Your task to perform on an android device: Turn on the flashlight Image 0: 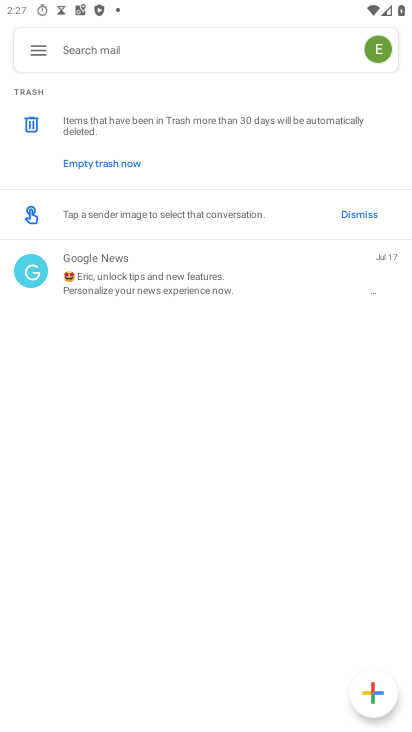
Step 0: press home button
Your task to perform on an android device: Turn on the flashlight Image 1: 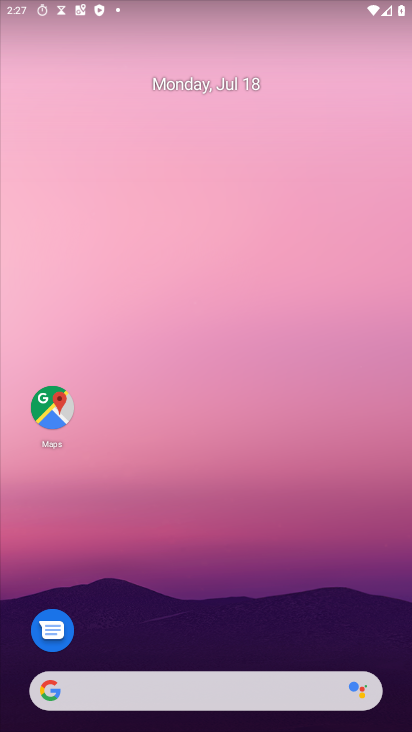
Step 1: click (138, 366)
Your task to perform on an android device: Turn on the flashlight Image 2: 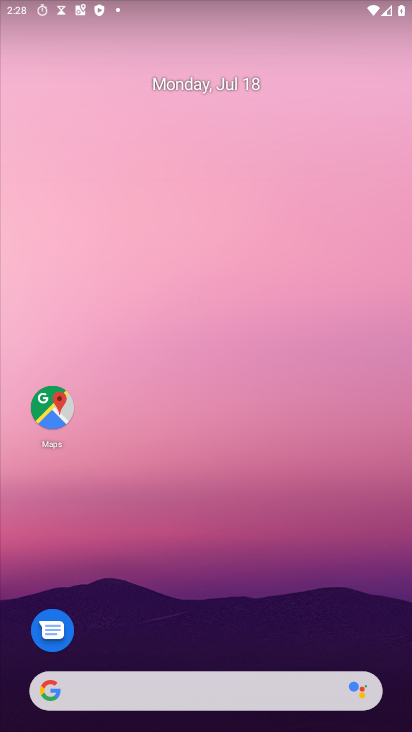
Step 2: task complete